Your task to perform on an android device: uninstall "PUBG MOBILE" Image 0: 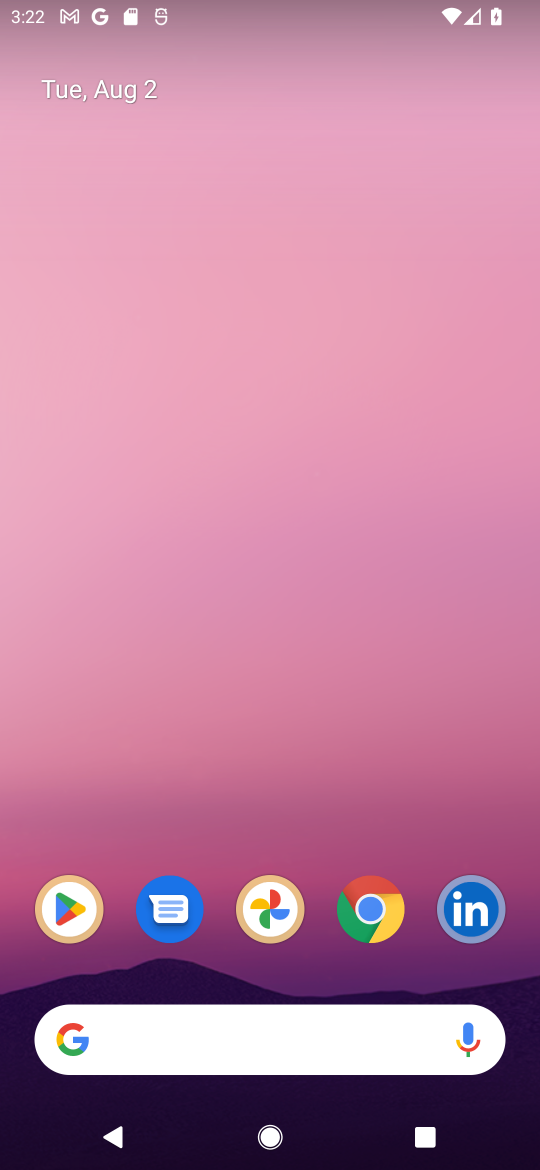
Step 0: drag from (227, 988) to (12, 590)
Your task to perform on an android device: uninstall "PUBG MOBILE" Image 1: 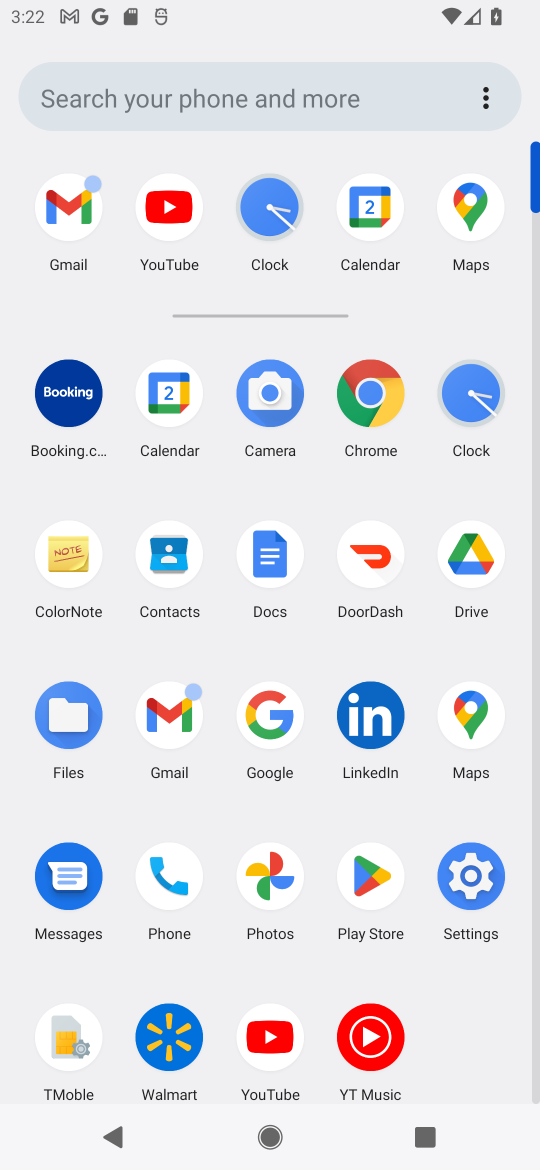
Step 1: click (373, 870)
Your task to perform on an android device: uninstall "PUBG MOBILE" Image 2: 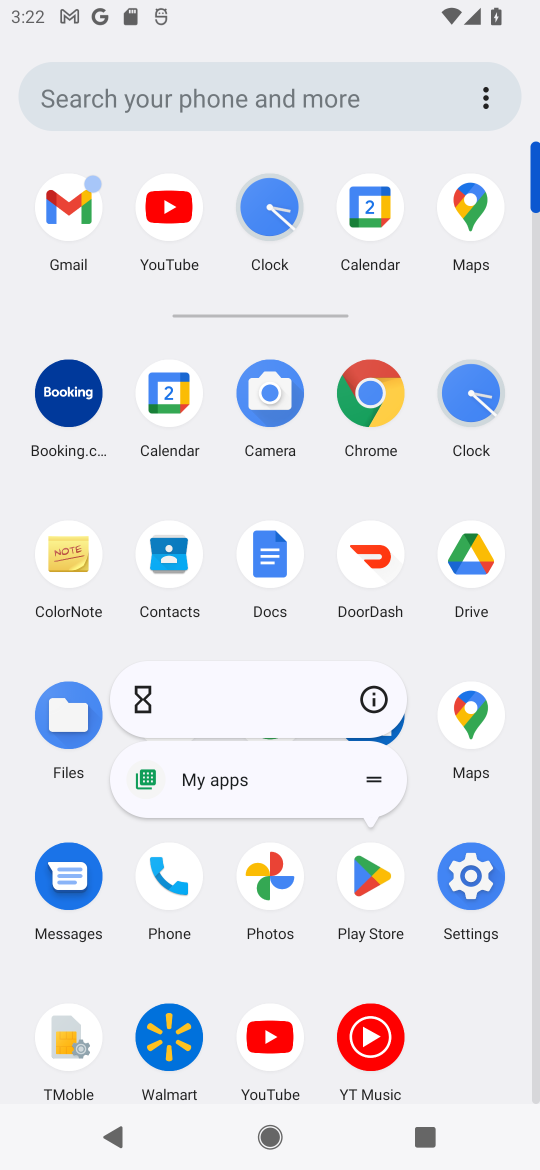
Step 2: click (386, 693)
Your task to perform on an android device: uninstall "PUBG MOBILE" Image 3: 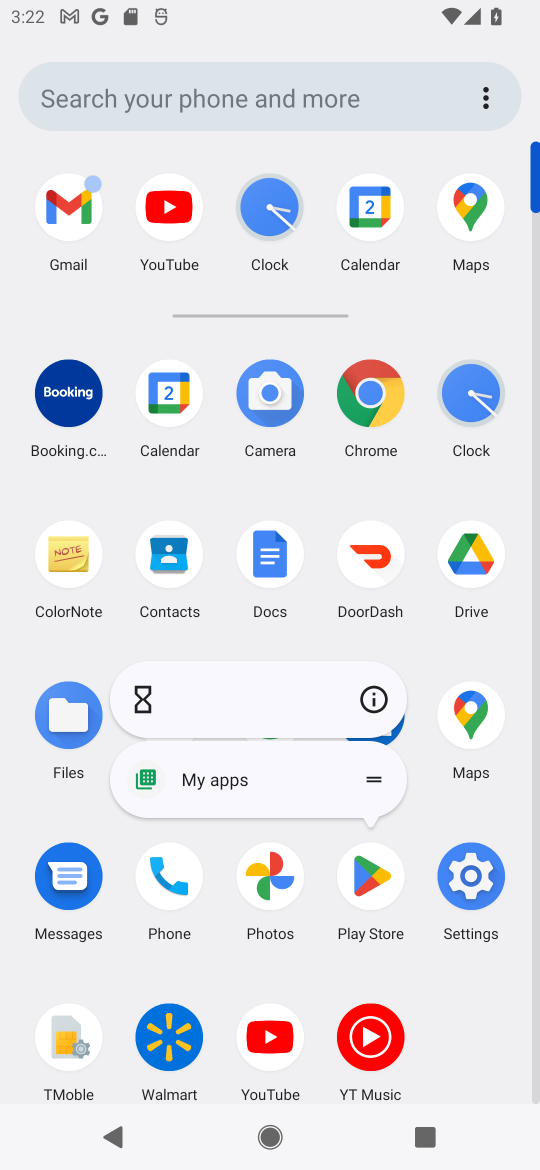
Step 3: click (384, 708)
Your task to perform on an android device: uninstall "PUBG MOBILE" Image 4: 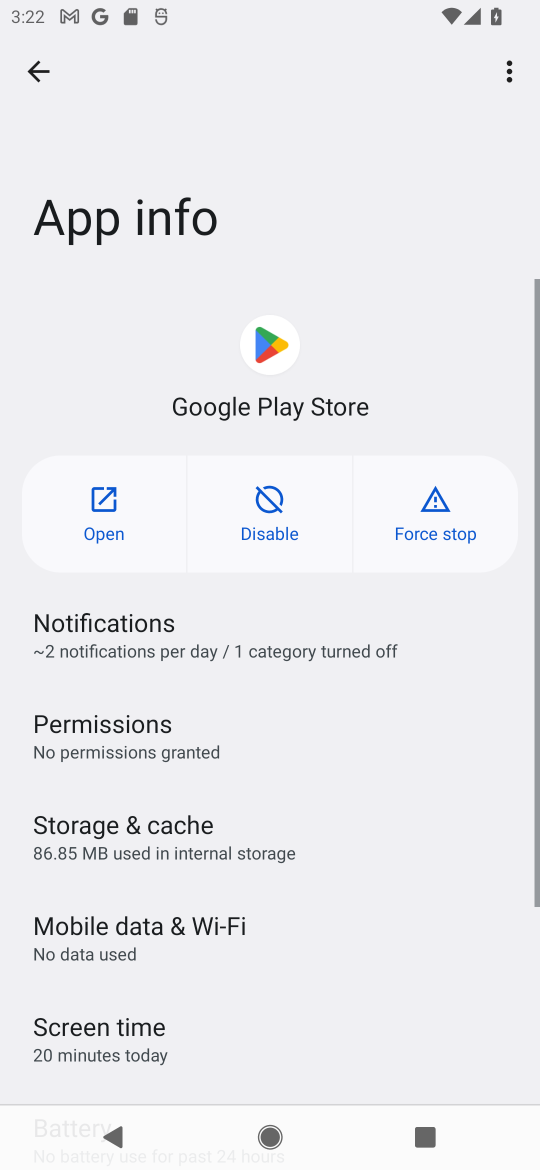
Step 4: click (103, 516)
Your task to perform on an android device: uninstall "PUBG MOBILE" Image 5: 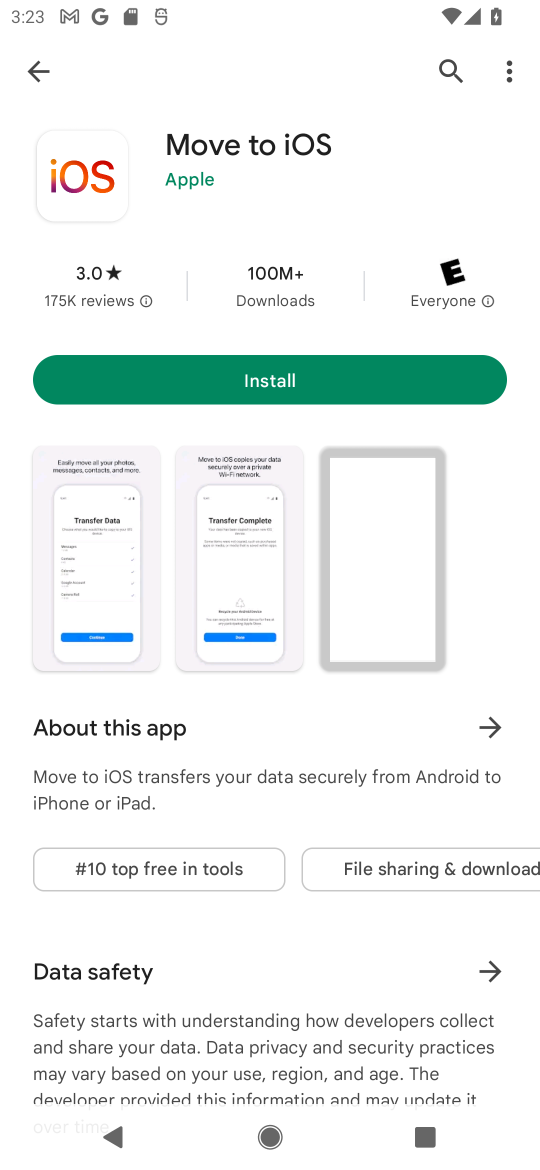
Step 5: drag from (275, 964) to (386, 1163)
Your task to perform on an android device: uninstall "PUBG MOBILE" Image 6: 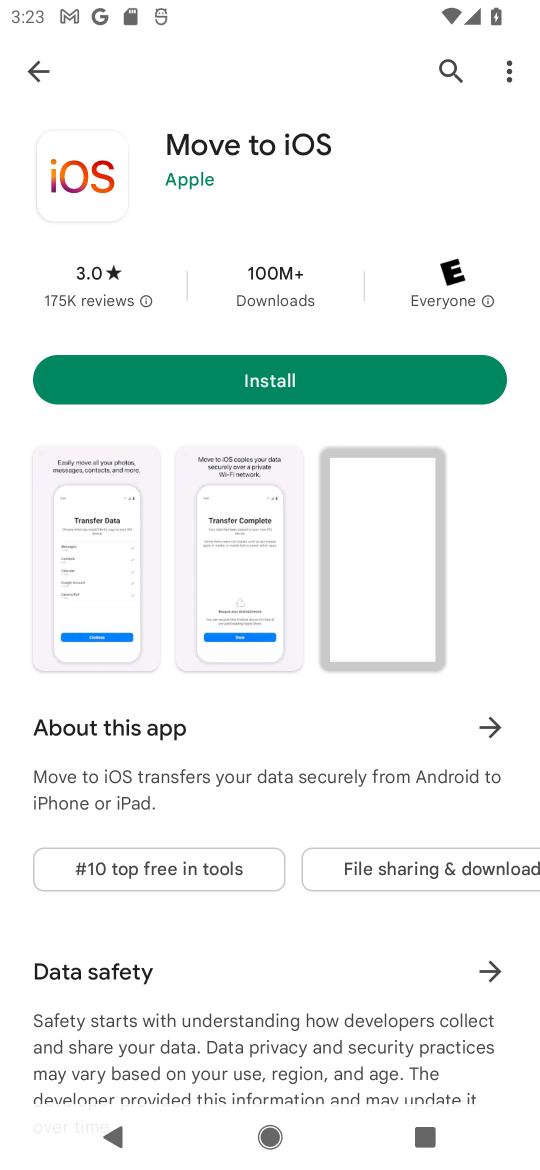
Step 6: drag from (341, 225) to (399, 1154)
Your task to perform on an android device: uninstall "PUBG MOBILE" Image 7: 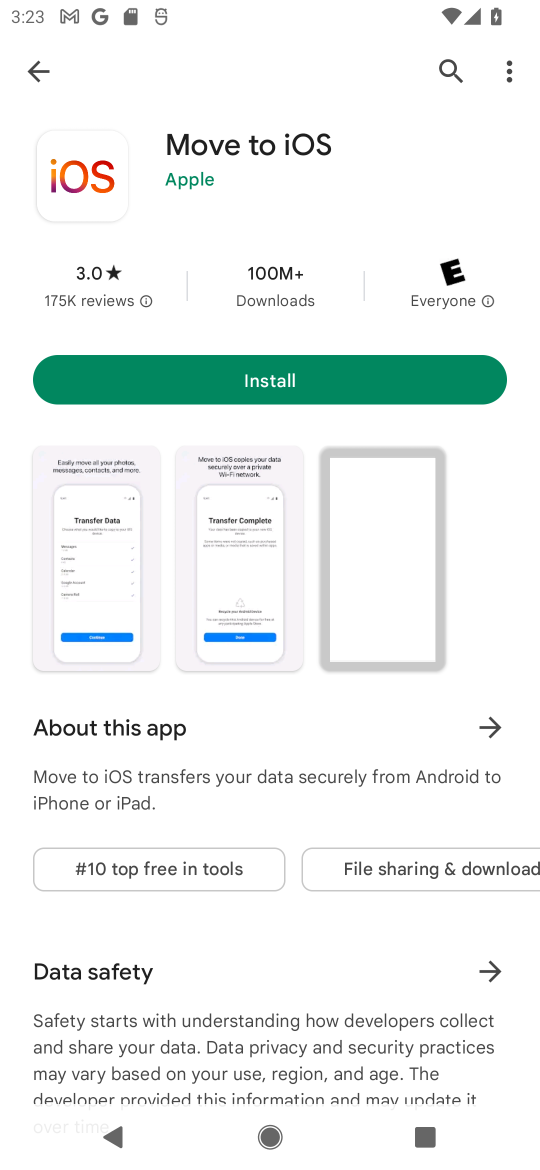
Step 7: click (460, 70)
Your task to perform on an android device: uninstall "PUBG MOBILE" Image 8: 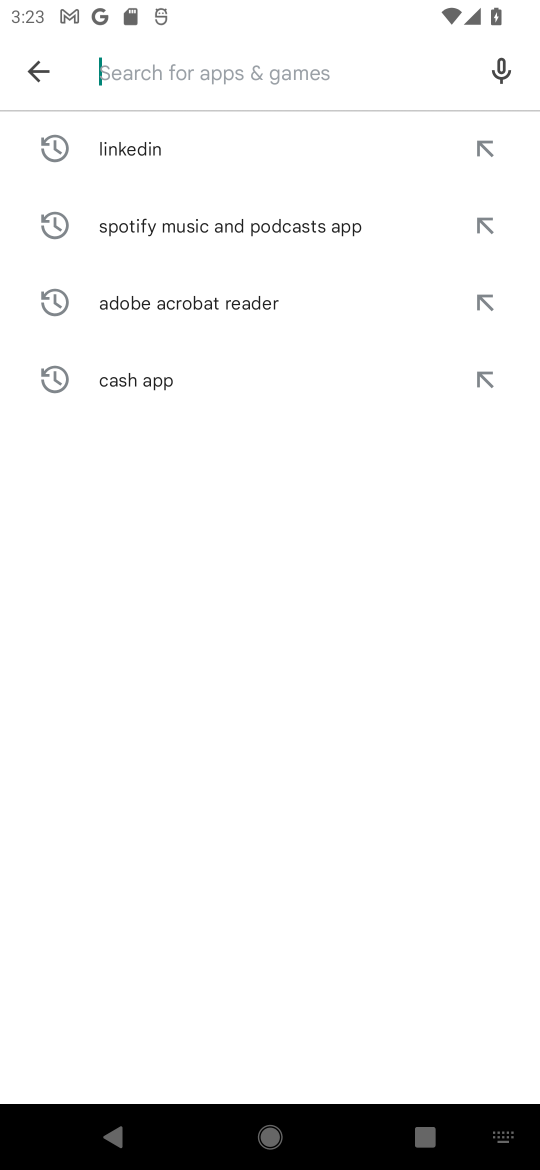
Step 8: click (240, 77)
Your task to perform on an android device: uninstall "PUBG MOBILE" Image 9: 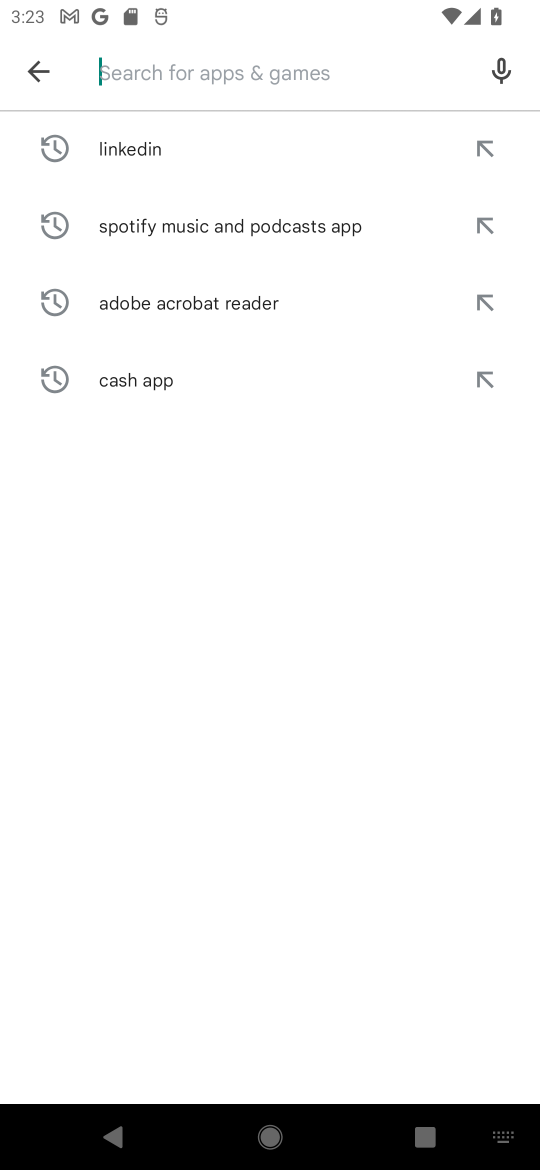
Step 9: type "PUBG MOBILE"
Your task to perform on an android device: uninstall "PUBG MOBILE" Image 10: 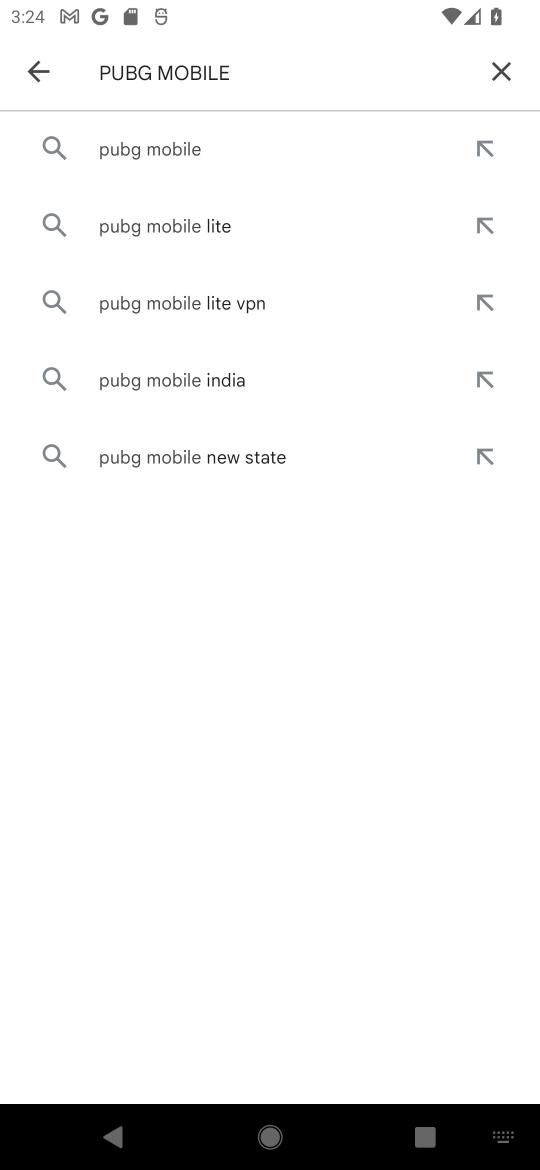
Step 10: click (261, 135)
Your task to perform on an android device: uninstall "PUBG MOBILE" Image 11: 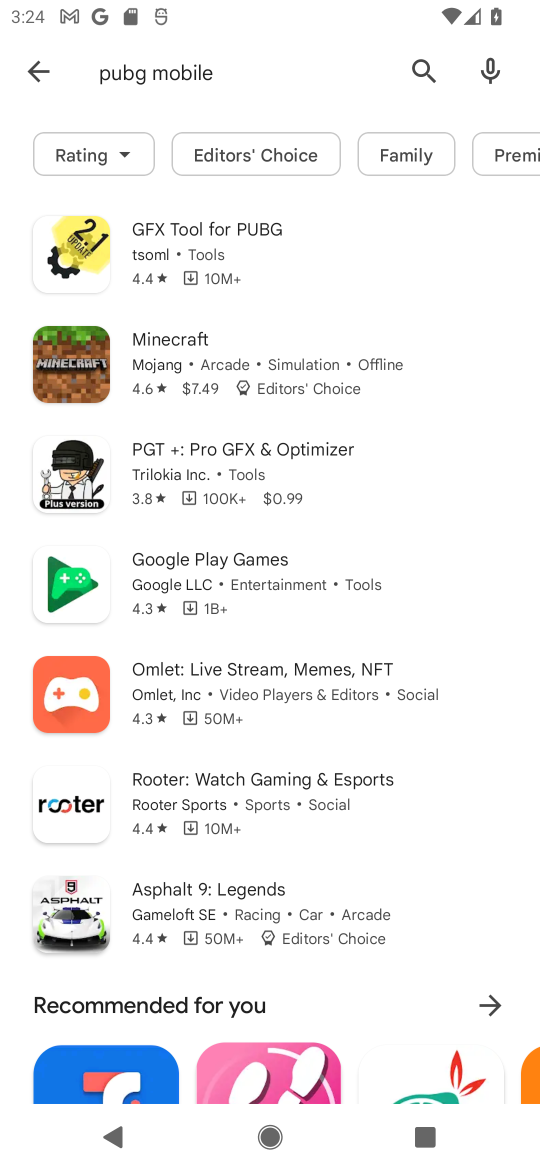
Step 11: drag from (292, 339) to (273, 948)
Your task to perform on an android device: uninstall "PUBG MOBILE" Image 12: 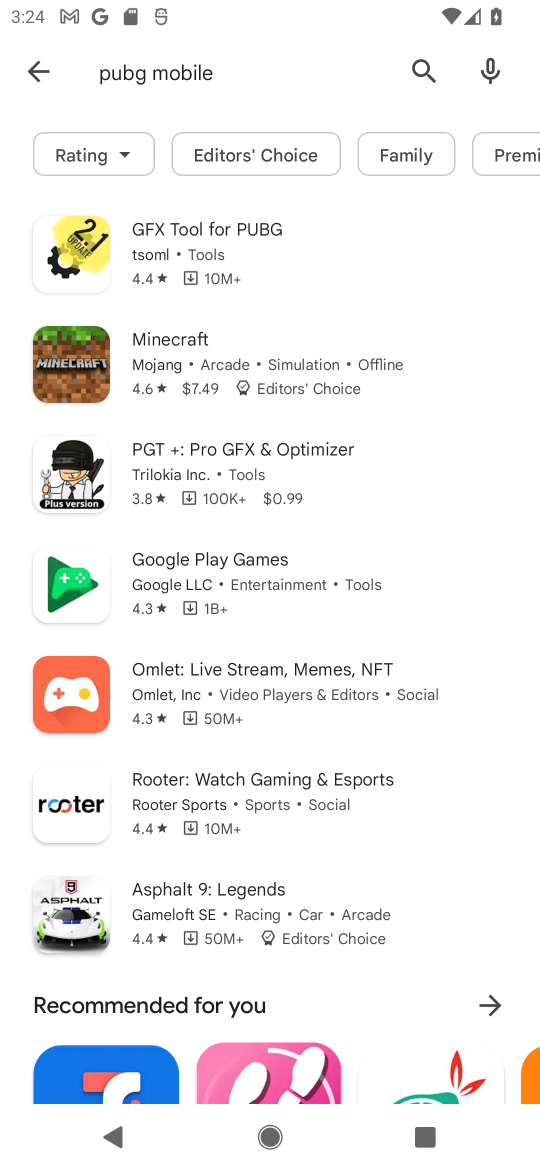
Step 12: drag from (272, 876) to (368, 500)
Your task to perform on an android device: uninstall "PUBG MOBILE" Image 13: 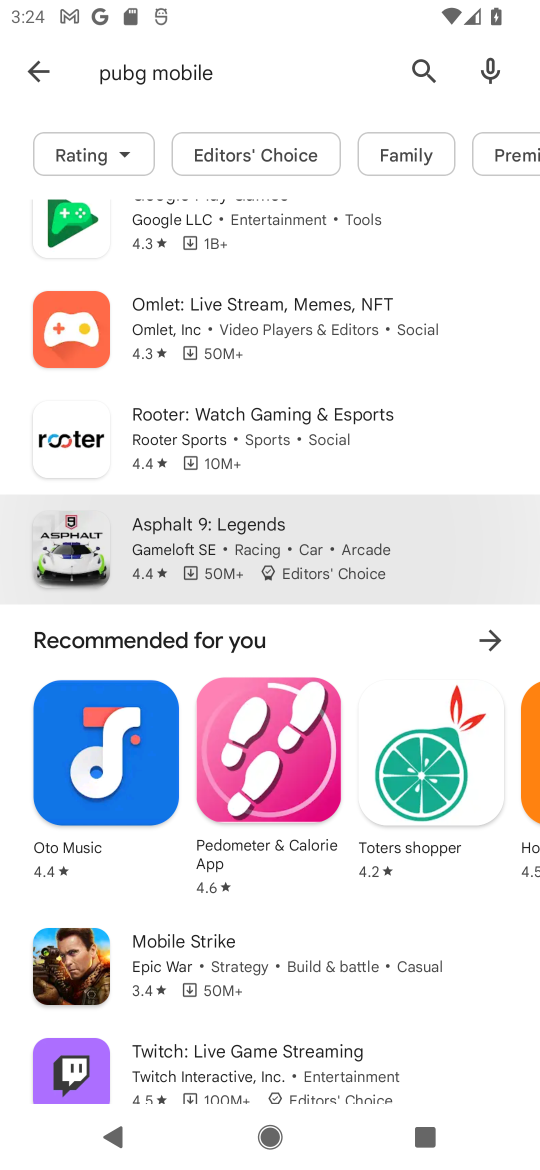
Step 13: drag from (380, 310) to (285, 1144)
Your task to perform on an android device: uninstall "PUBG MOBILE" Image 14: 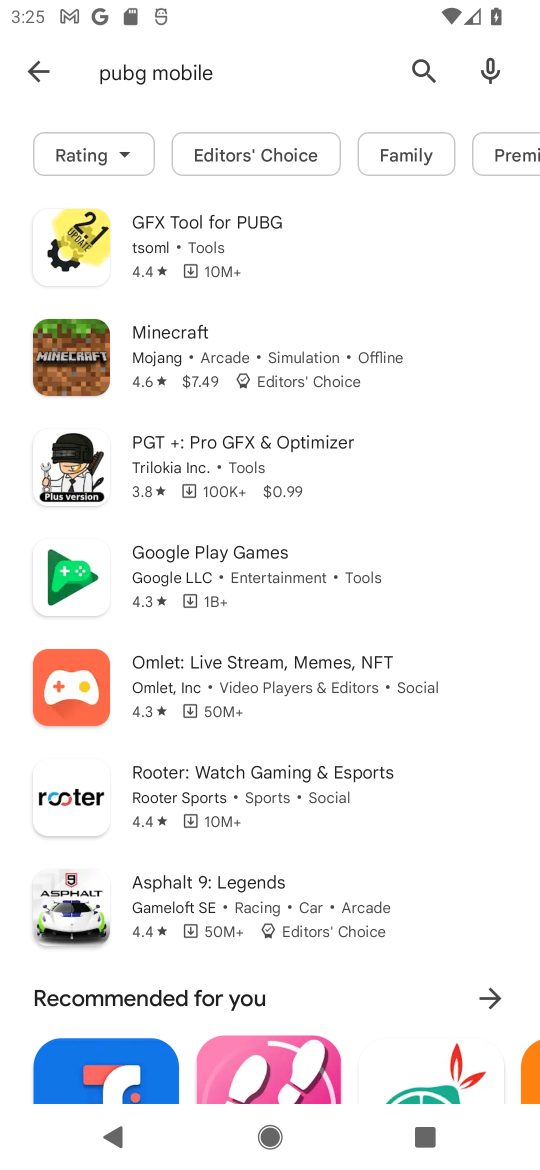
Step 14: drag from (254, 482) to (203, 1151)
Your task to perform on an android device: uninstall "PUBG MOBILE" Image 15: 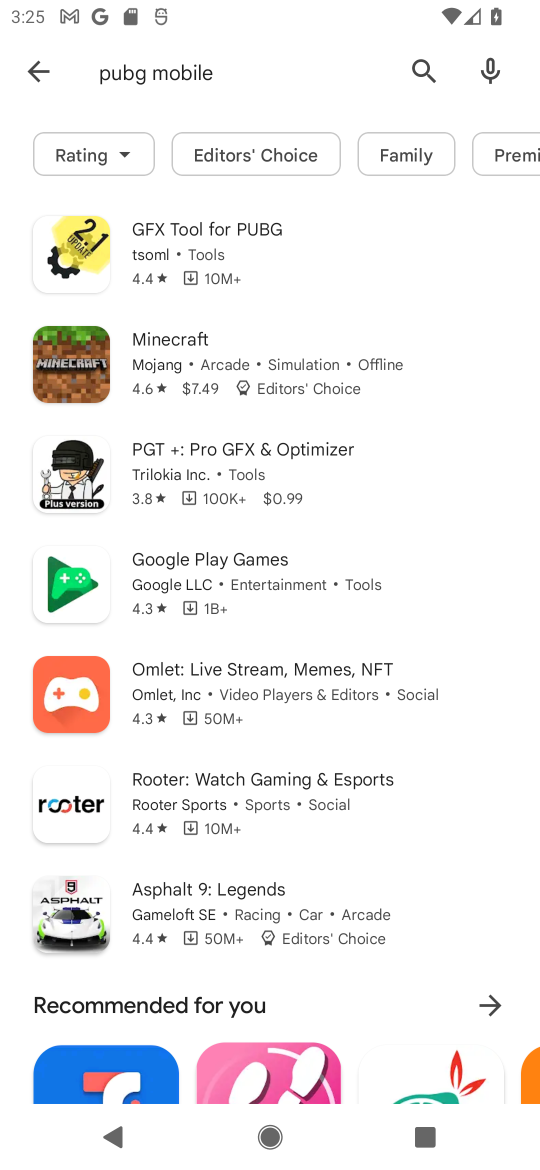
Step 15: click (422, 72)
Your task to perform on an android device: uninstall "PUBG MOBILE" Image 16: 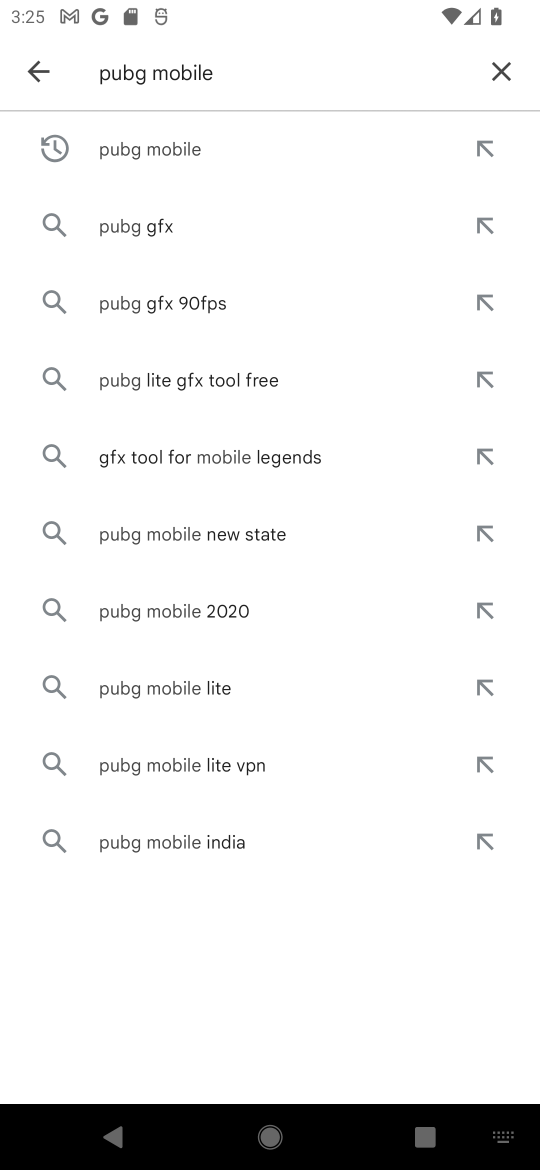
Step 16: click (200, 156)
Your task to perform on an android device: uninstall "PUBG MOBILE" Image 17: 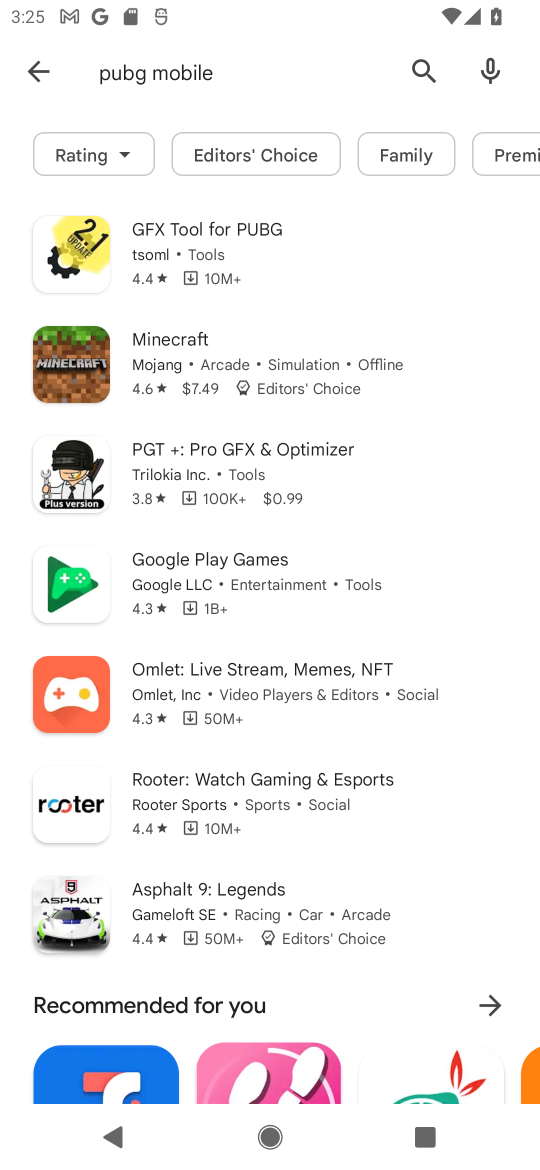
Step 17: task complete